Your task to perform on an android device: toggle location history Image 0: 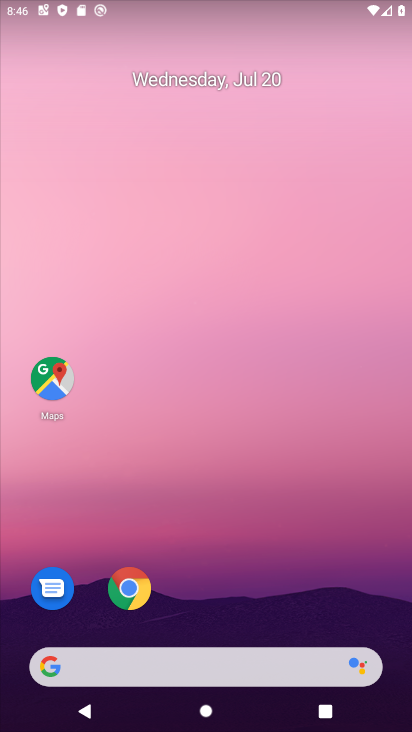
Step 0: drag from (184, 607) to (194, 86)
Your task to perform on an android device: toggle location history Image 1: 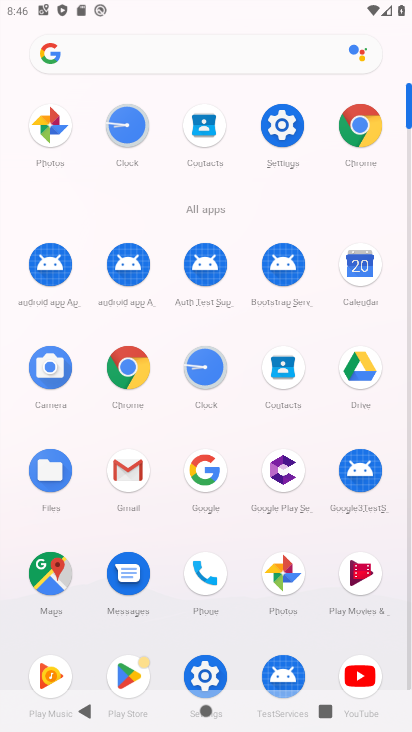
Step 1: click (285, 149)
Your task to perform on an android device: toggle location history Image 2: 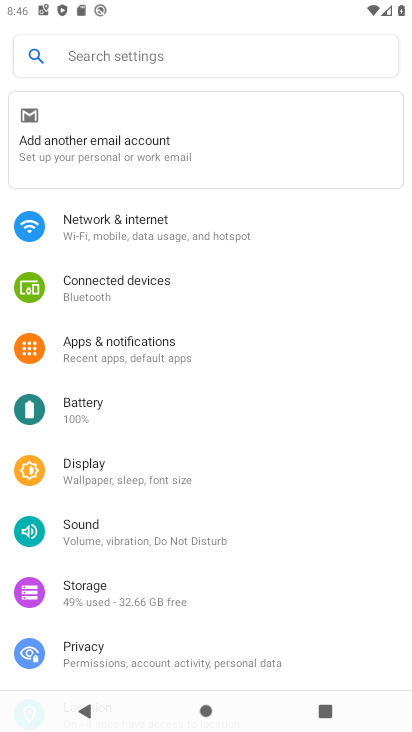
Step 2: drag from (96, 652) to (134, 150)
Your task to perform on an android device: toggle location history Image 3: 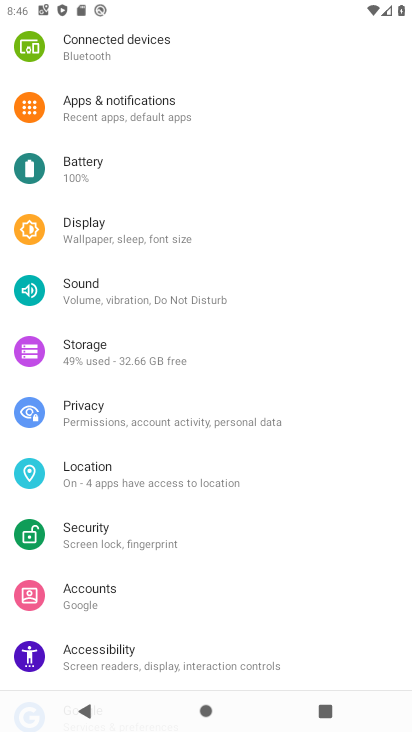
Step 3: click (131, 490)
Your task to perform on an android device: toggle location history Image 4: 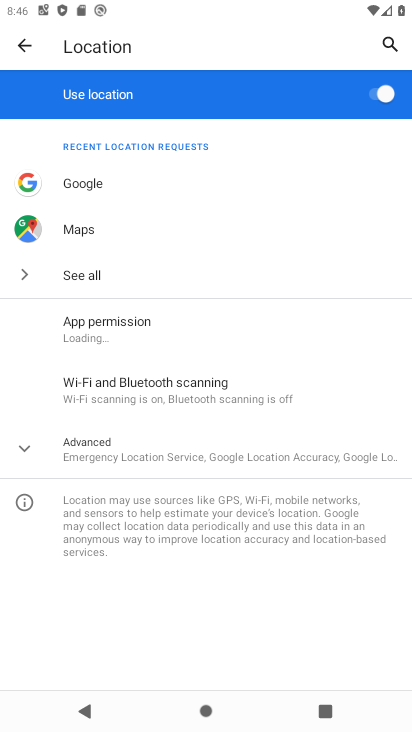
Step 4: click (198, 463)
Your task to perform on an android device: toggle location history Image 5: 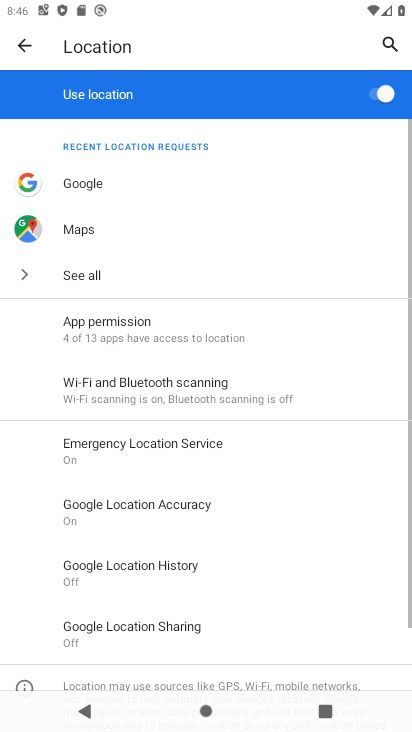
Step 5: click (205, 557)
Your task to perform on an android device: toggle location history Image 6: 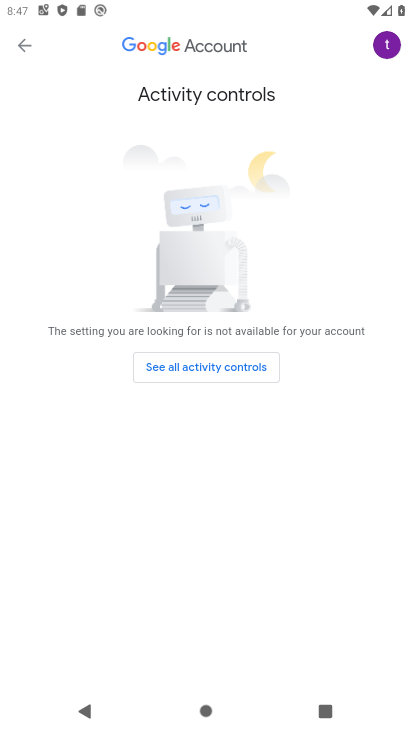
Step 6: task complete